Your task to perform on an android device: move an email to a new category in the gmail app Image 0: 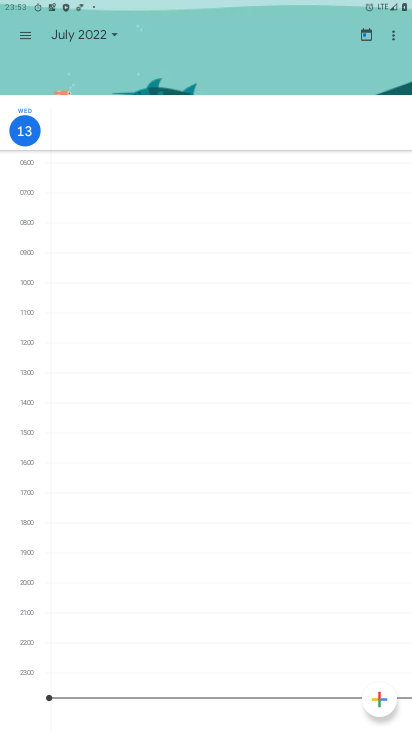
Step 0: press home button
Your task to perform on an android device: move an email to a new category in the gmail app Image 1: 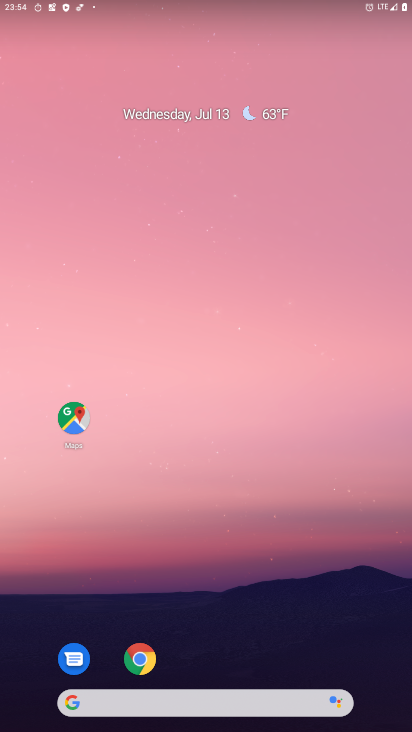
Step 1: drag from (205, 597) to (217, 105)
Your task to perform on an android device: move an email to a new category in the gmail app Image 2: 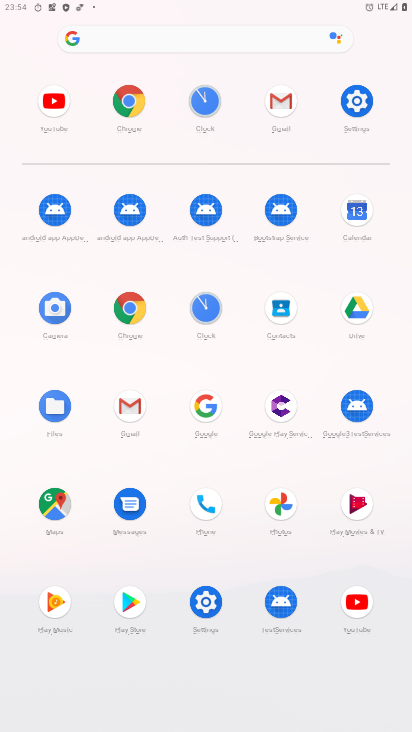
Step 2: click (287, 102)
Your task to perform on an android device: move an email to a new category in the gmail app Image 3: 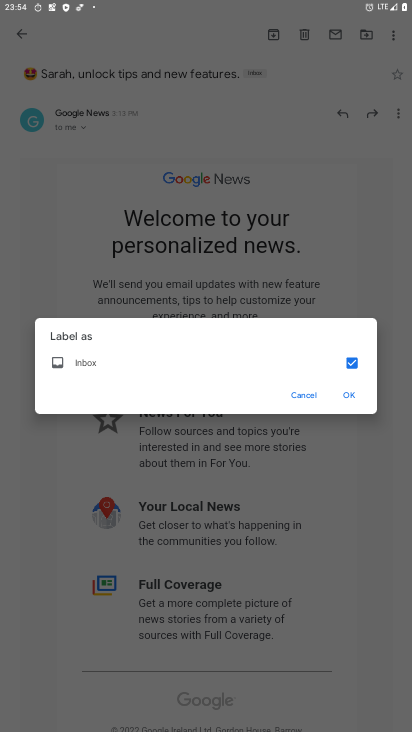
Step 3: click (302, 394)
Your task to perform on an android device: move an email to a new category in the gmail app Image 4: 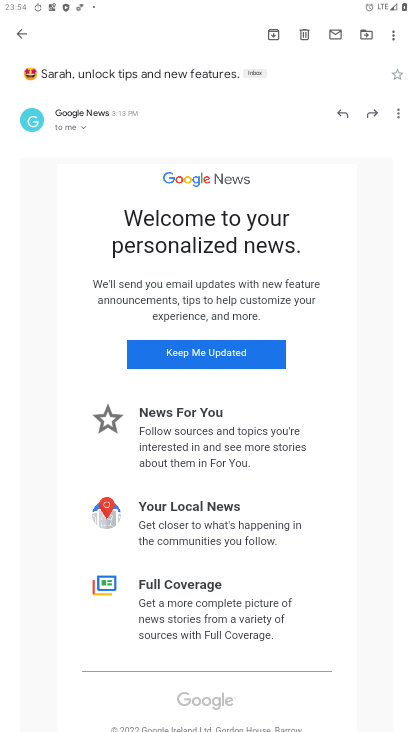
Step 4: click (399, 36)
Your task to perform on an android device: move an email to a new category in the gmail app Image 5: 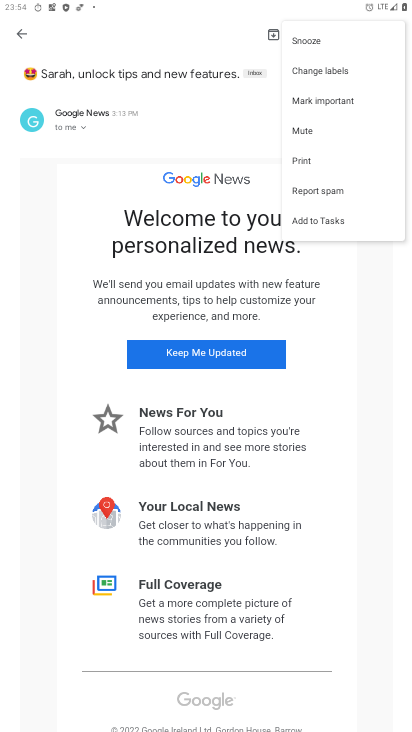
Step 5: click (332, 72)
Your task to perform on an android device: move an email to a new category in the gmail app Image 6: 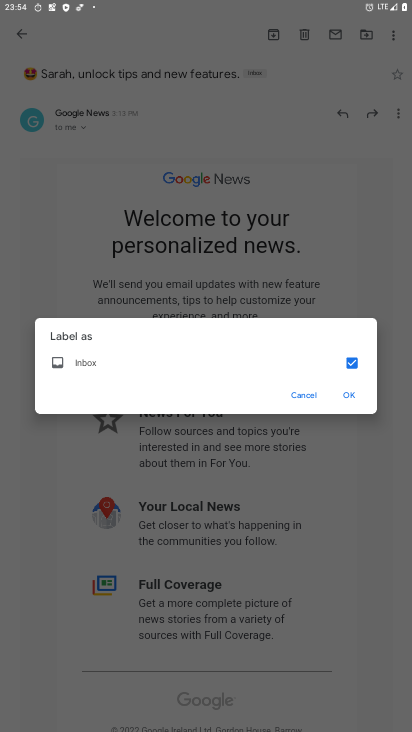
Step 6: task complete